Your task to perform on an android device: delete a single message in the gmail app Image 0: 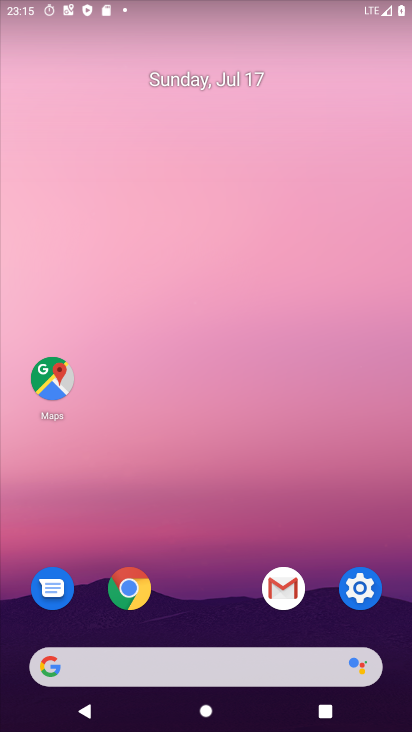
Step 0: press home button
Your task to perform on an android device: delete a single message in the gmail app Image 1: 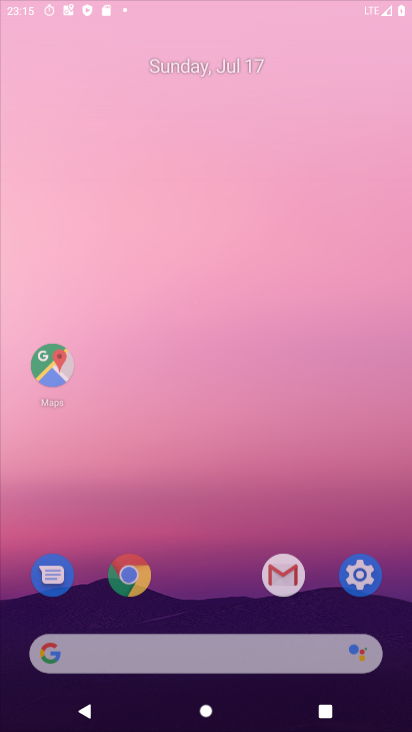
Step 1: click (373, 601)
Your task to perform on an android device: delete a single message in the gmail app Image 2: 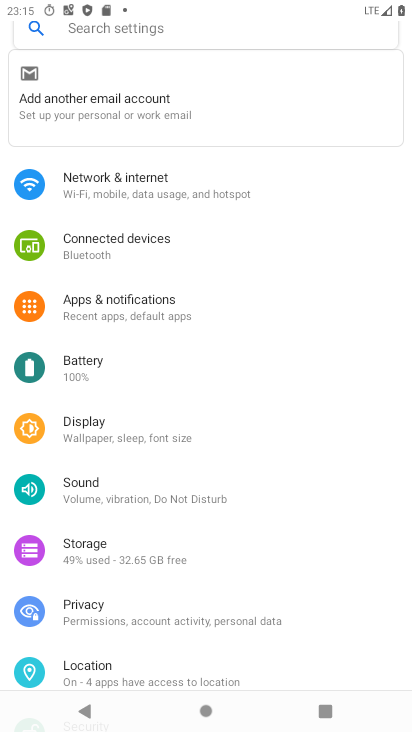
Step 2: press home button
Your task to perform on an android device: delete a single message in the gmail app Image 3: 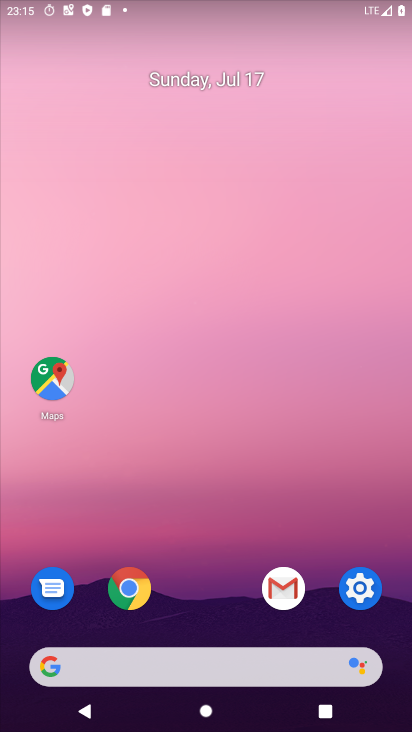
Step 3: click (284, 608)
Your task to perform on an android device: delete a single message in the gmail app Image 4: 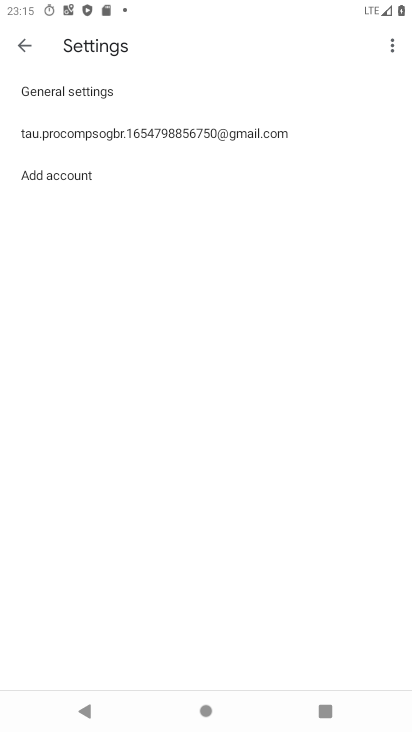
Step 4: click (29, 52)
Your task to perform on an android device: delete a single message in the gmail app Image 5: 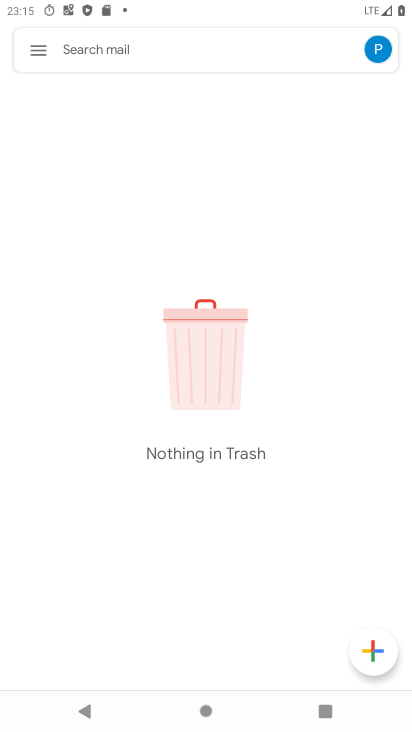
Step 5: click (33, 58)
Your task to perform on an android device: delete a single message in the gmail app Image 6: 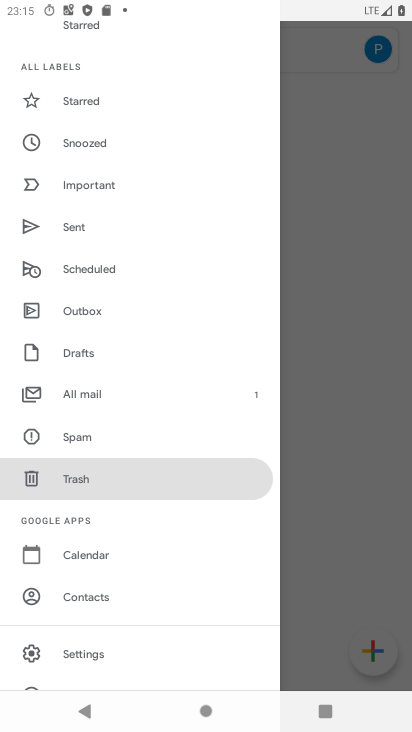
Step 6: click (105, 390)
Your task to perform on an android device: delete a single message in the gmail app Image 7: 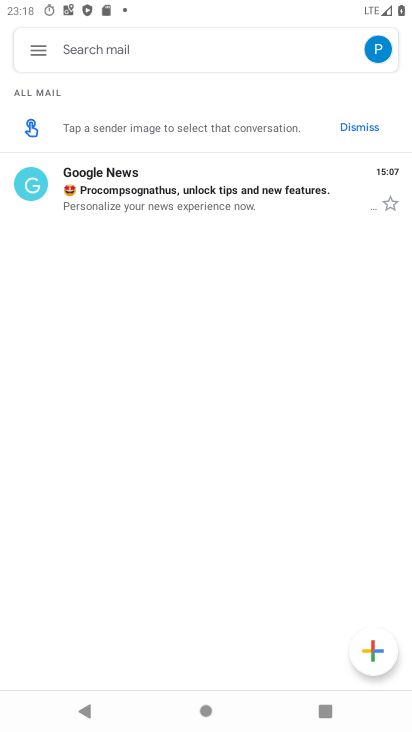
Step 7: click (178, 204)
Your task to perform on an android device: delete a single message in the gmail app Image 8: 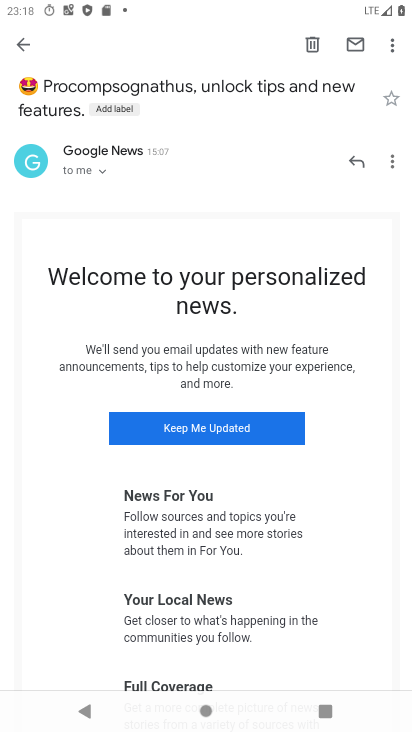
Step 8: click (305, 50)
Your task to perform on an android device: delete a single message in the gmail app Image 9: 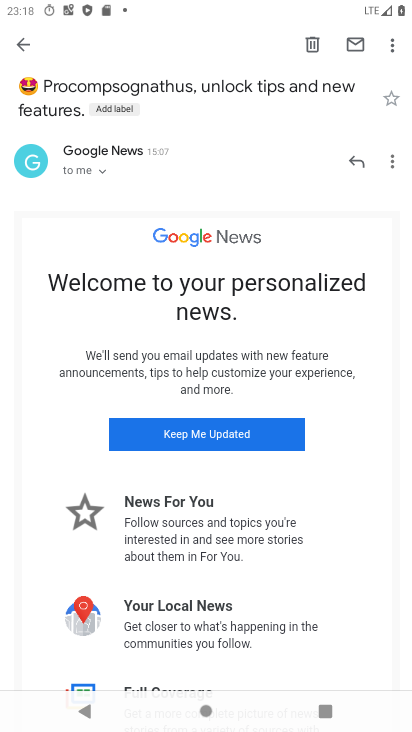
Step 9: click (320, 47)
Your task to perform on an android device: delete a single message in the gmail app Image 10: 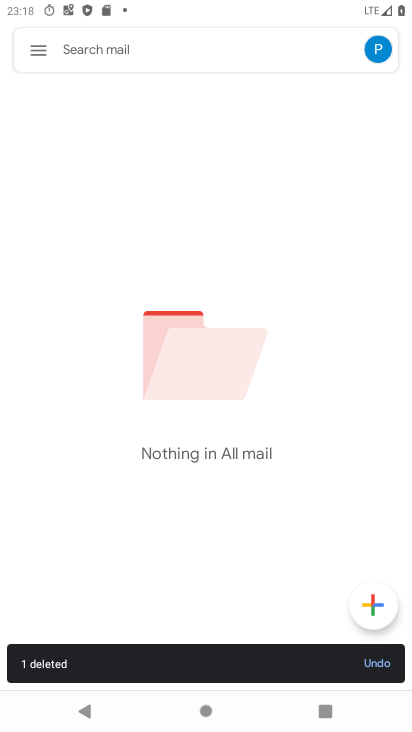
Step 10: task complete